Your task to perform on an android device: toggle translation in the chrome app Image 0: 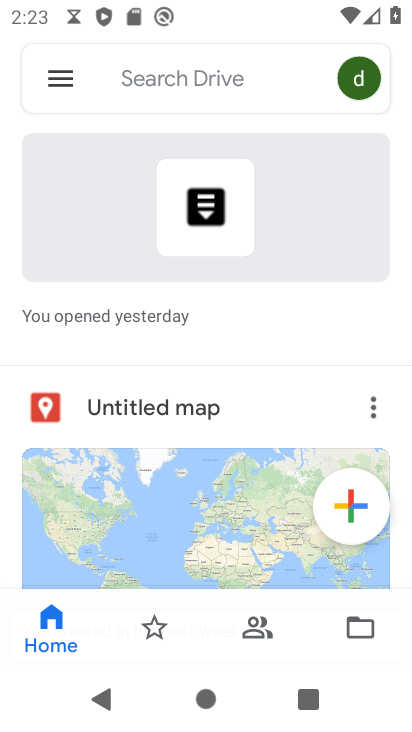
Step 0: press home button
Your task to perform on an android device: toggle translation in the chrome app Image 1: 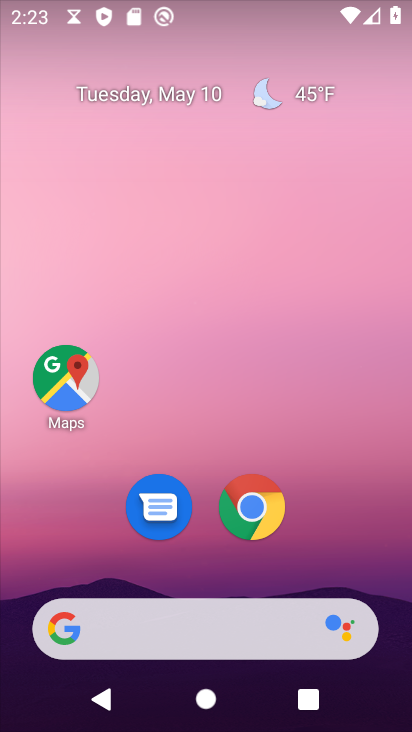
Step 1: drag from (325, 524) to (132, 187)
Your task to perform on an android device: toggle translation in the chrome app Image 2: 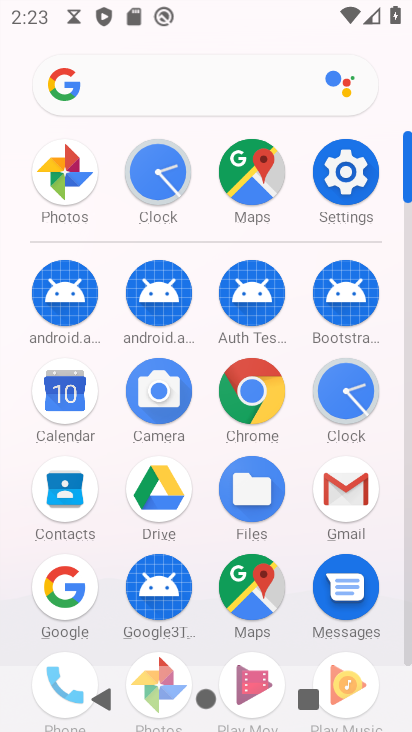
Step 2: click (249, 400)
Your task to perform on an android device: toggle translation in the chrome app Image 3: 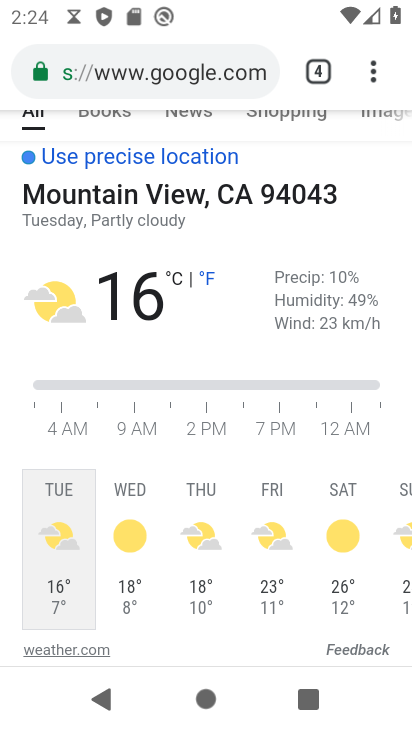
Step 3: drag from (374, 64) to (151, 499)
Your task to perform on an android device: toggle translation in the chrome app Image 4: 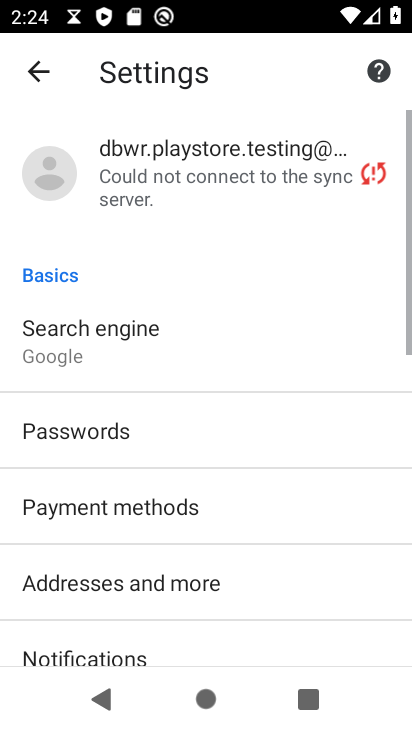
Step 4: drag from (224, 630) to (234, 264)
Your task to perform on an android device: toggle translation in the chrome app Image 5: 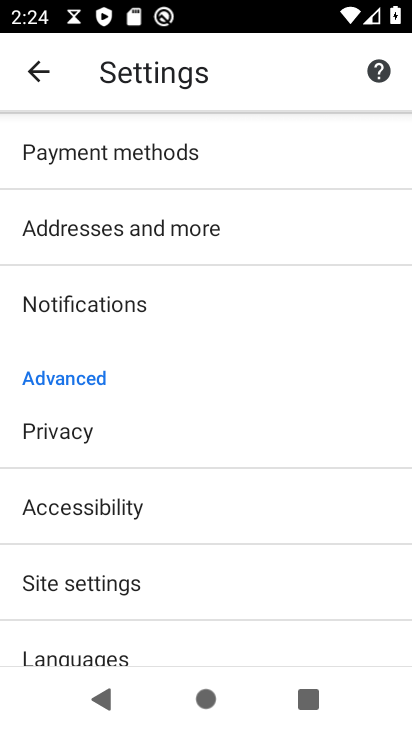
Step 5: click (104, 652)
Your task to perform on an android device: toggle translation in the chrome app Image 6: 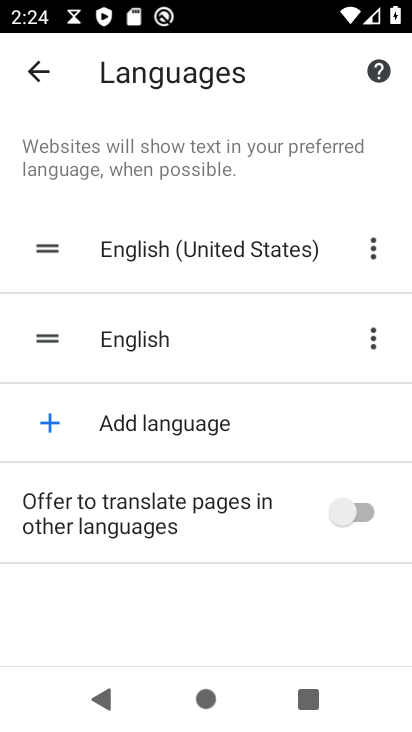
Step 6: click (352, 516)
Your task to perform on an android device: toggle translation in the chrome app Image 7: 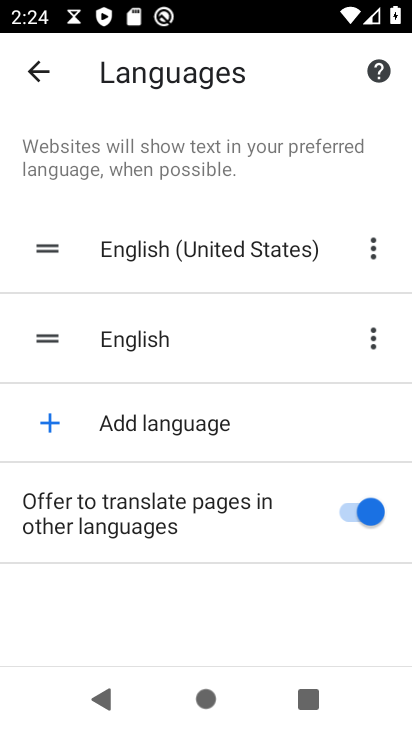
Step 7: task complete